Your task to perform on an android device: find photos in the google photos app Image 0: 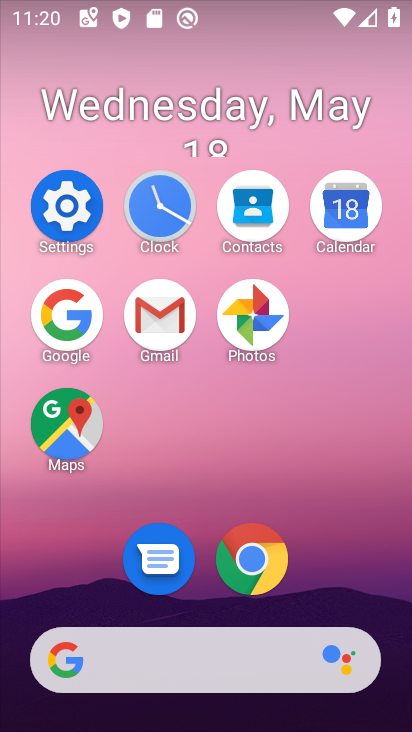
Step 0: click (266, 338)
Your task to perform on an android device: find photos in the google photos app Image 1: 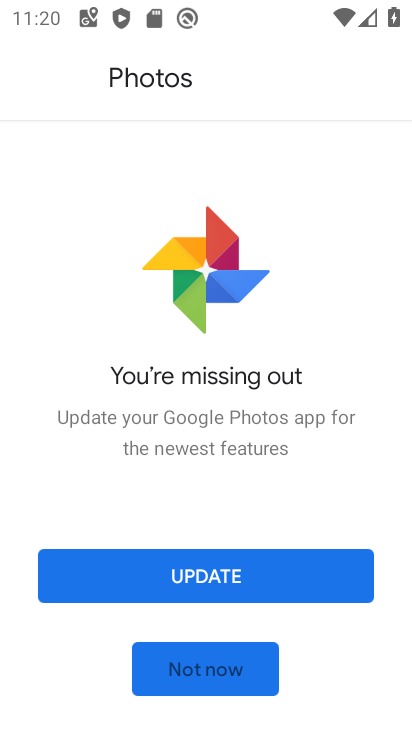
Step 1: click (295, 593)
Your task to perform on an android device: find photos in the google photos app Image 2: 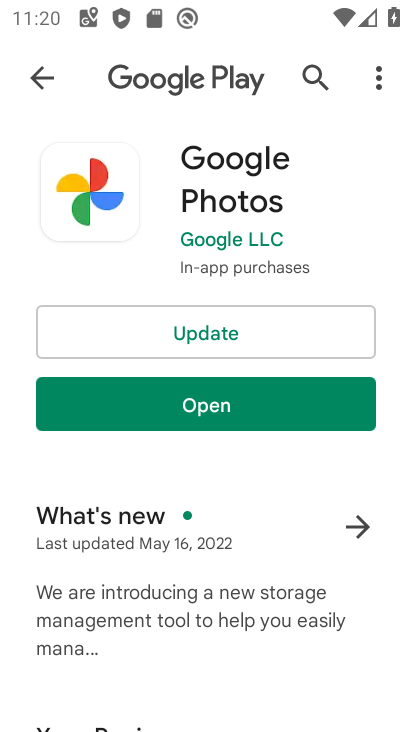
Step 2: click (294, 340)
Your task to perform on an android device: find photos in the google photos app Image 3: 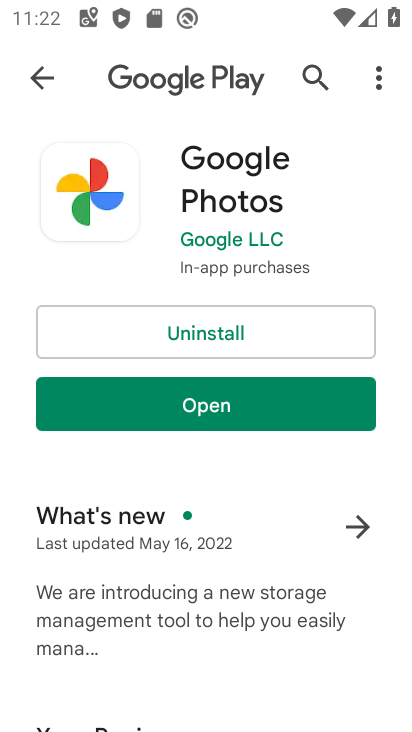
Step 3: click (288, 409)
Your task to perform on an android device: find photos in the google photos app Image 4: 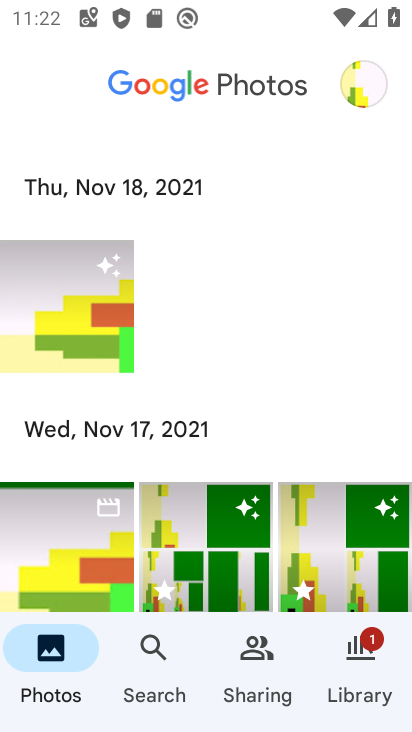
Step 4: task complete